Your task to perform on an android device: Go to notification settings Image 0: 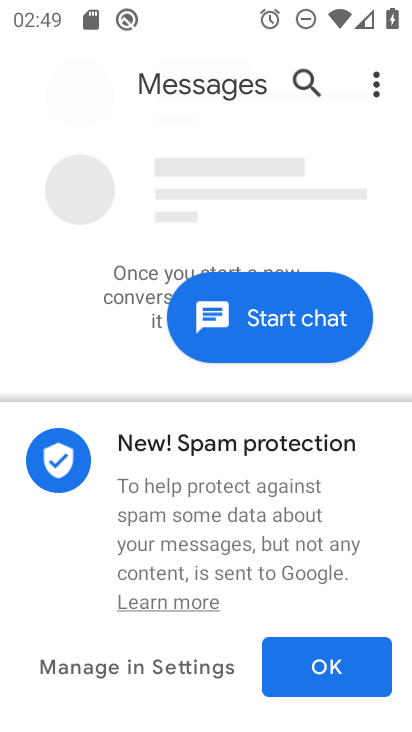
Step 0: press home button
Your task to perform on an android device: Go to notification settings Image 1: 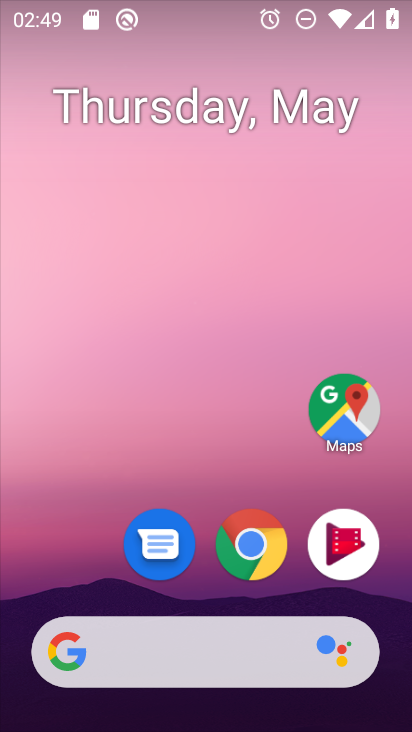
Step 1: drag from (393, 604) to (380, 248)
Your task to perform on an android device: Go to notification settings Image 2: 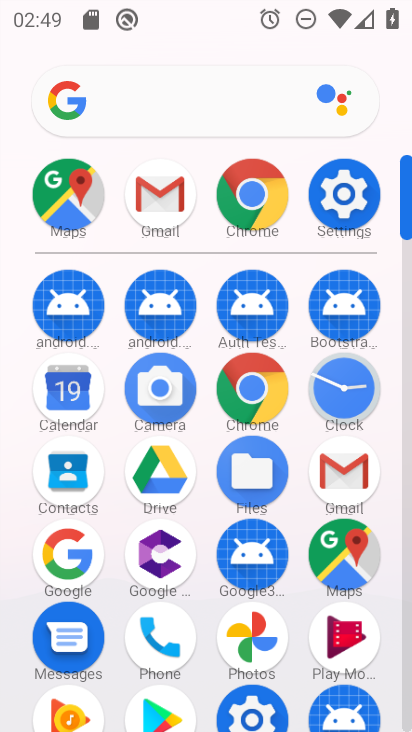
Step 2: click (352, 202)
Your task to perform on an android device: Go to notification settings Image 3: 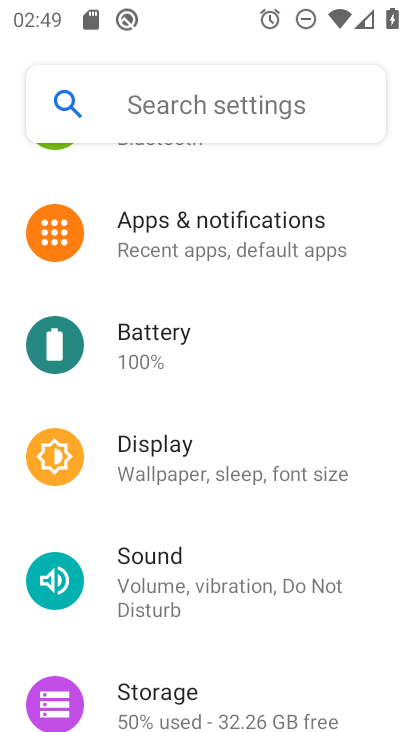
Step 3: drag from (360, 637) to (363, 509)
Your task to perform on an android device: Go to notification settings Image 4: 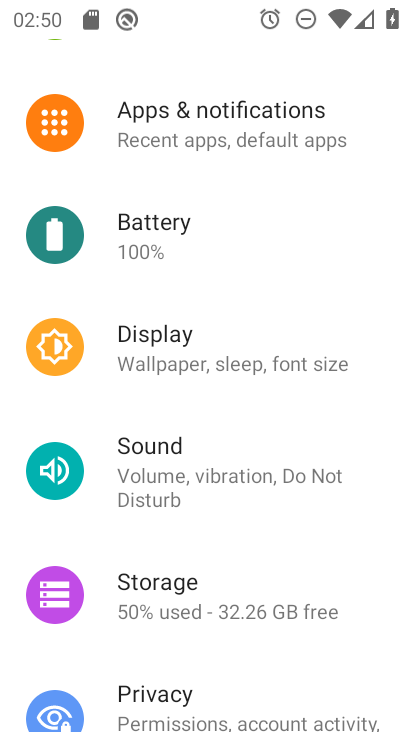
Step 4: drag from (325, 646) to (327, 555)
Your task to perform on an android device: Go to notification settings Image 5: 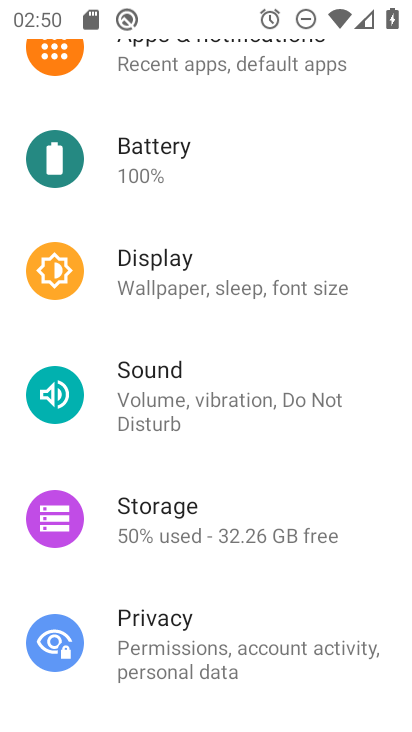
Step 5: drag from (342, 681) to (345, 584)
Your task to perform on an android device: Go to notification settings Image 6: 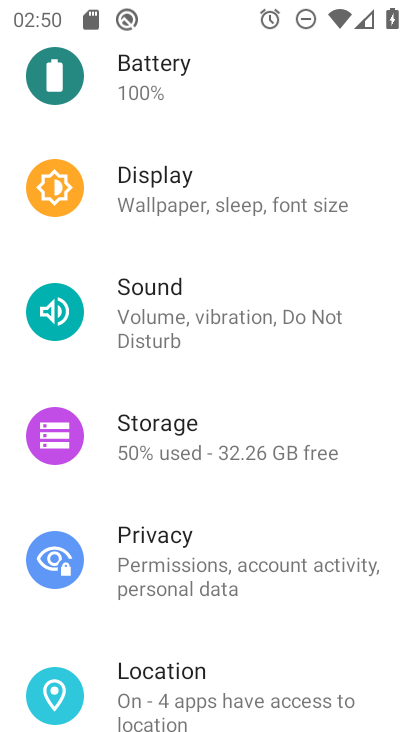
Step 6: drag from (351, 670) to (352, 533)
Your task to perform on an android device: Go to notification settings Image 7: 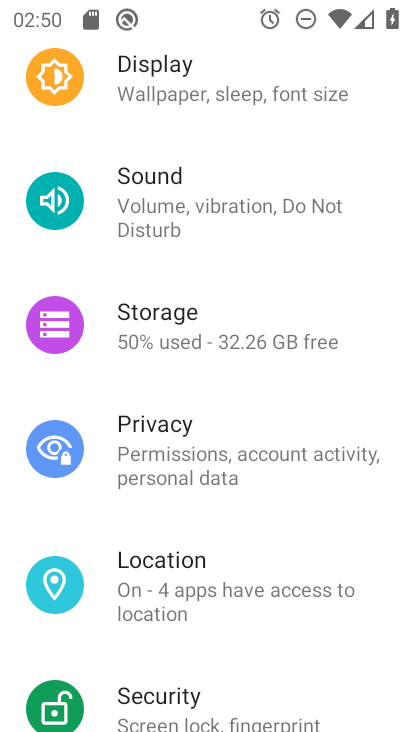
Step 7: drag from (347, 686) to (349, 612)
Your task to perform on an android device: Go to notification settings Image 8: 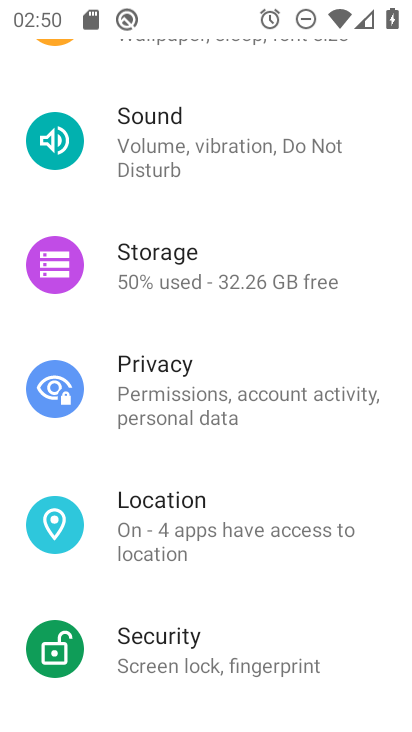
Step 8: drag from (365, 696) to (362, 608)
Your task to perform on an android device: Go to notification settings Image 9: 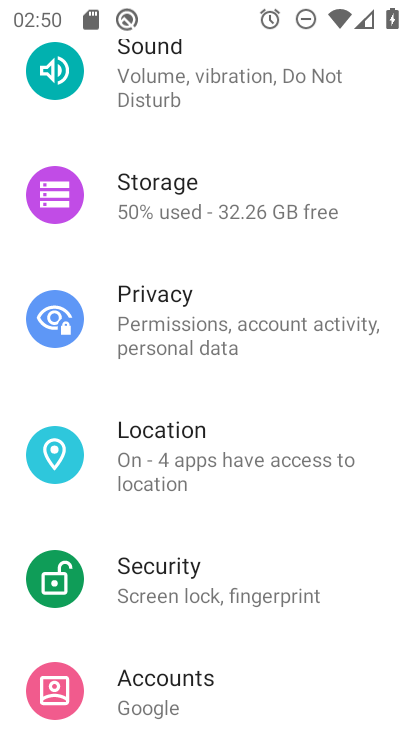
Step 9: drag from (360, 687) to (364, 591)
Your task to perform on an android device: Go to notification settings Image 10: 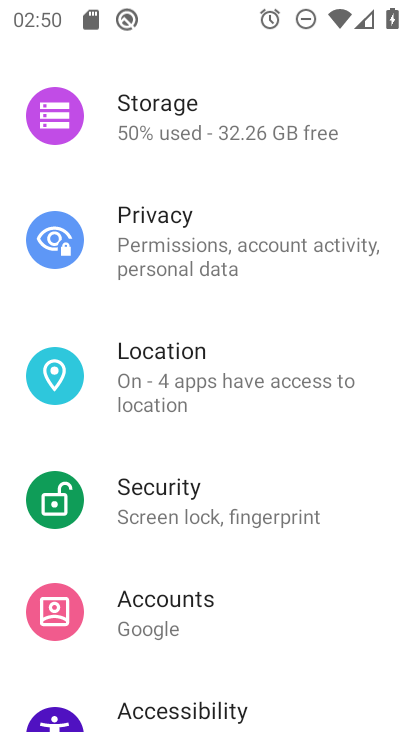
Step 10: drag from (372, 681) to (373, 601)
Your task to perform on an android device: Go to notification settings Image 11: 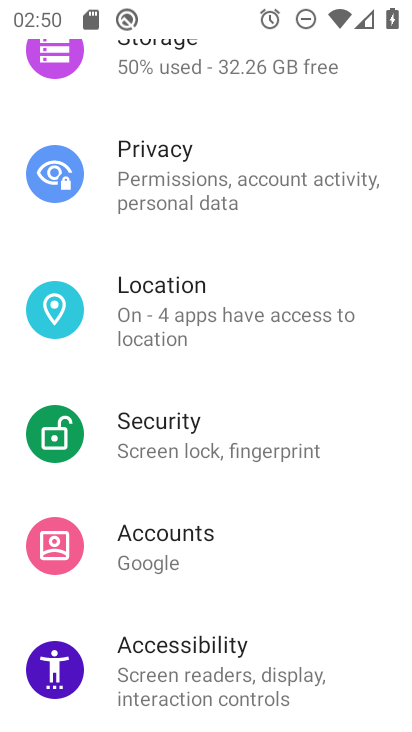
Step 11: drag from (365, 697) to (365, 614)
Your task to perform on an android device: Go to notification settings Image 12: 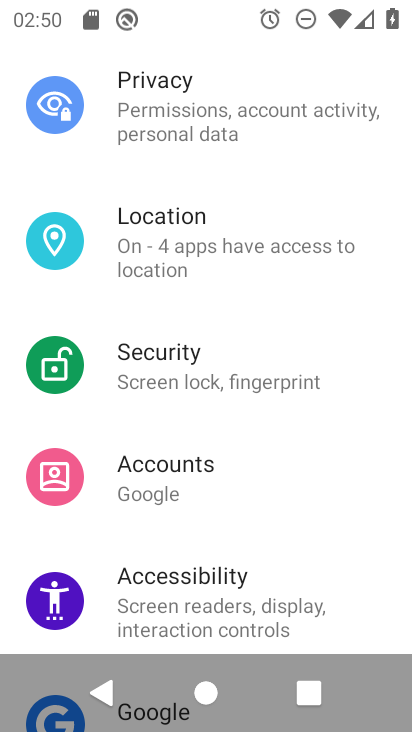
Step 12: drag from (354, 621) to (355, 514)
Your task to perform on an android device: Go to notification settings Image 13: 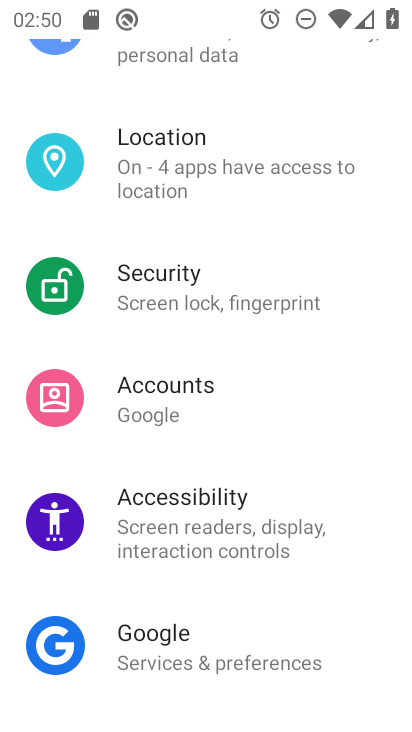
Step 13: drag from (347, 661) to (357, 567)
Your task to perform on an android device: Go to notification settings Image 14: 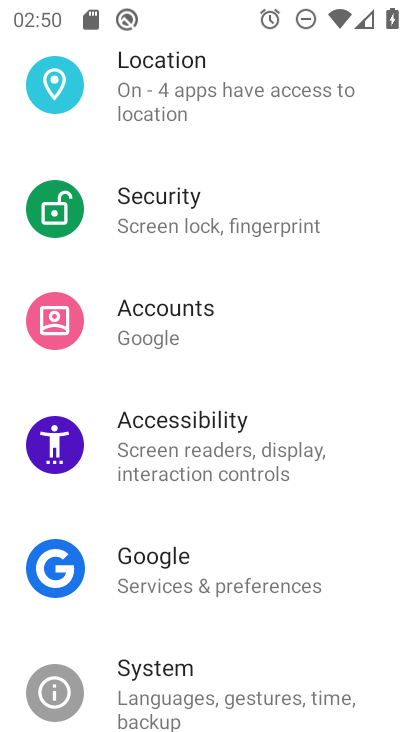
Step 14: drag from (363, 442) to (359, 555)
Your task to perform on an android device: Go to notification settings Image 15: 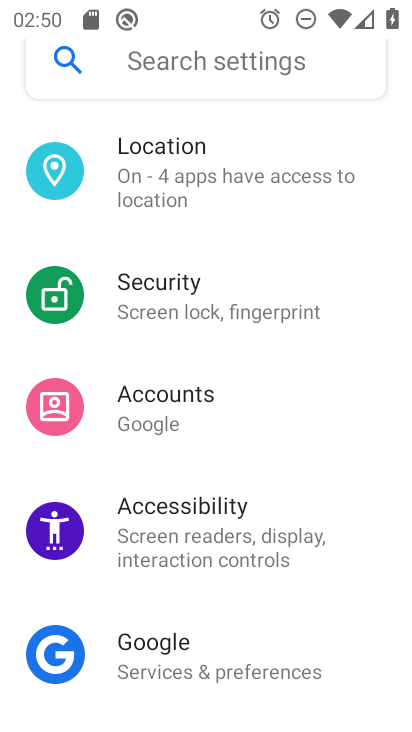
Step 15: drag from (334, 377) to (333, 484)
Your task to perform on an android device: Go to notification settings Image 16: 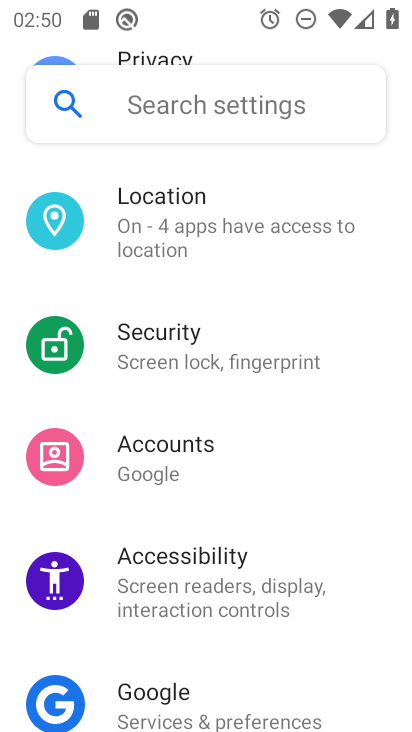
Step 16: drag from (340, 331) to (346, 462)
Your task to perform on an android device: Go to notification settings Image 17: 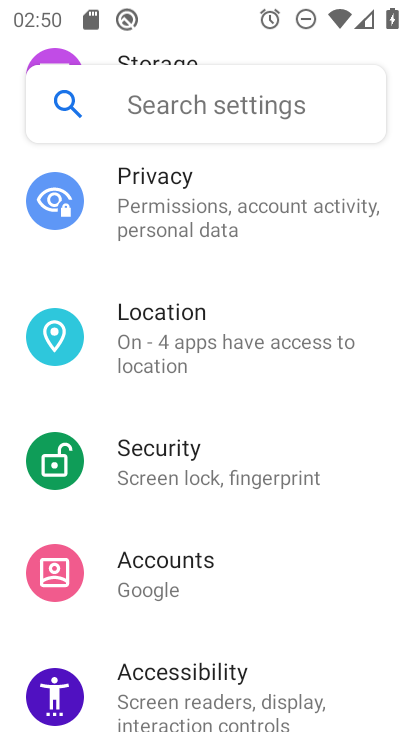
Step 17: drag from (341, 280) to (341, 393)
Your task to perform on an android device: Go to notification settings Image 18: 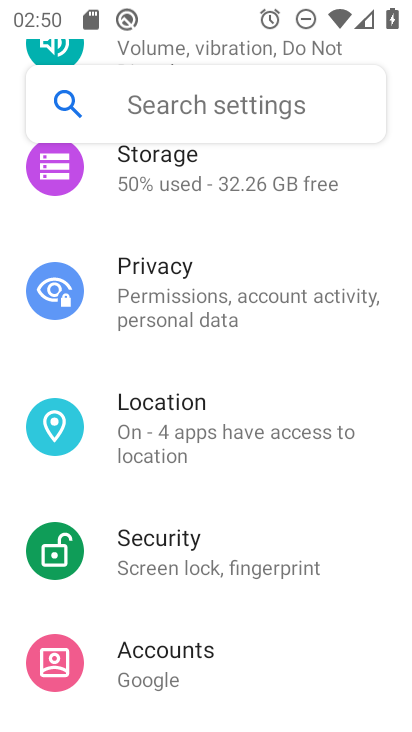
Step 18: drag from (344, 239) to (340, 354)
Your task to perform on an android device: Go to notification settings Image 19: 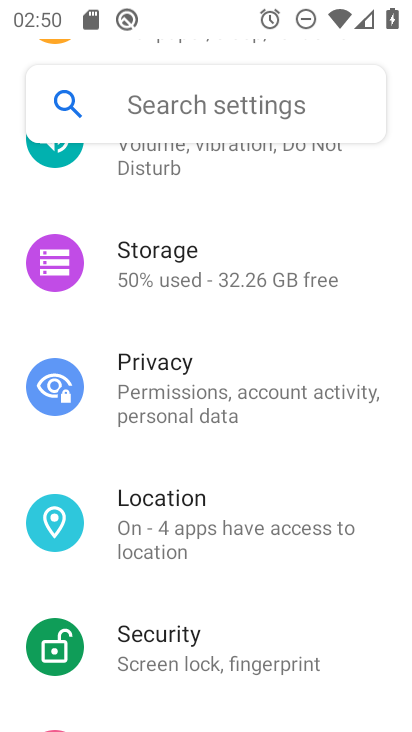
Step 19: drag from (346, 221) to (346, 357)
Your task to perform on an android device: Go to notification settings Image 20: 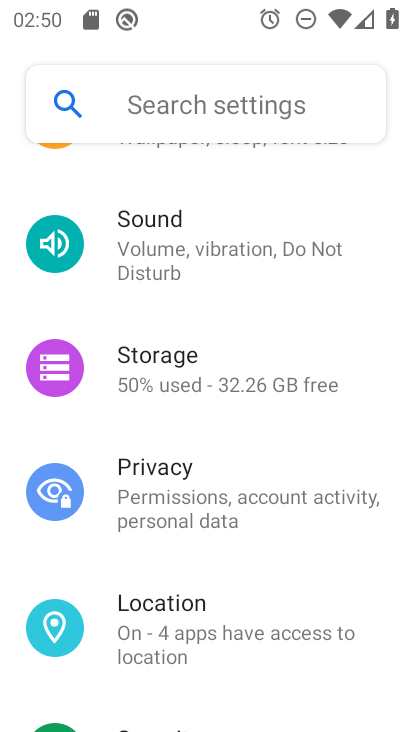
Step 20: drag from (345, 221) to (349, 357)
Your task to perform on an android device: Go to notification settings Image 21: 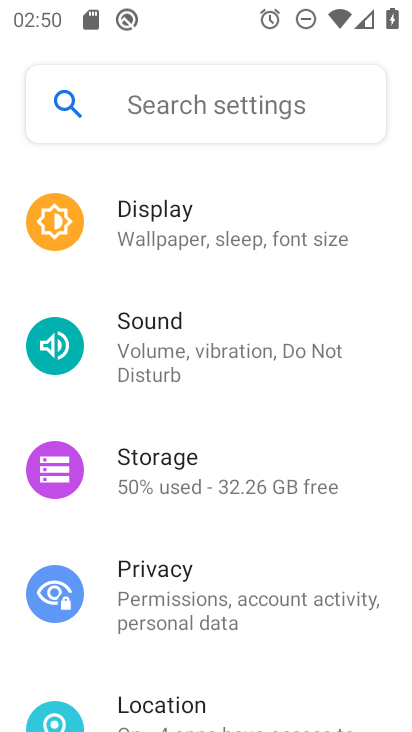
Step 21: drag from (345, 214) to (343, 354)
Your task to perform on an android device: Go to notification settings Image 22: 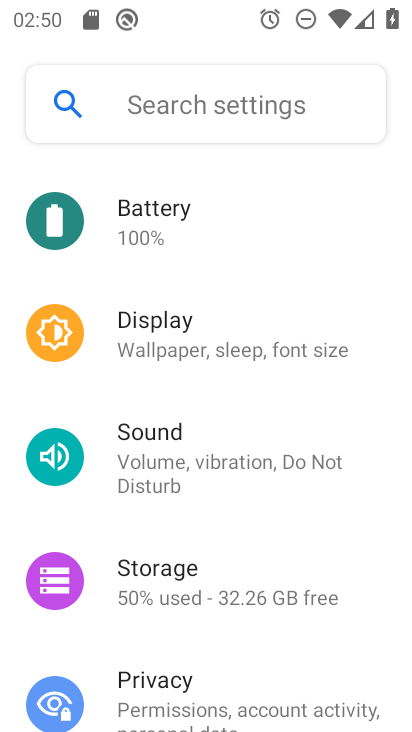
Step 22: drag from (352, 218) to (351, 353)
Your task to perform on an android device: Go to notification settings Image 23: 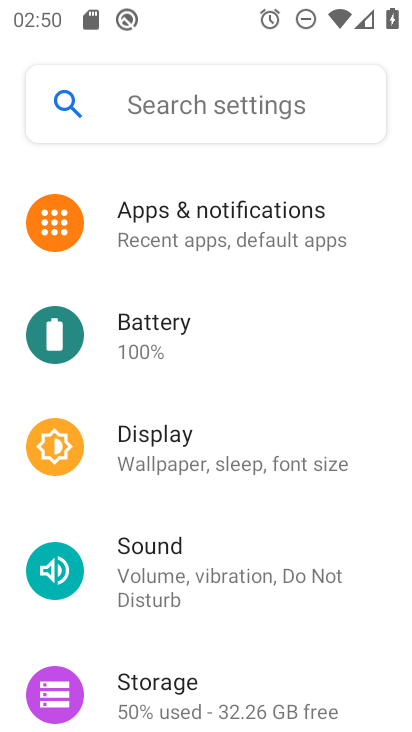
Step 23: click (278, 236)
Your task to perform on an android device: Go to notification settings Image 24: 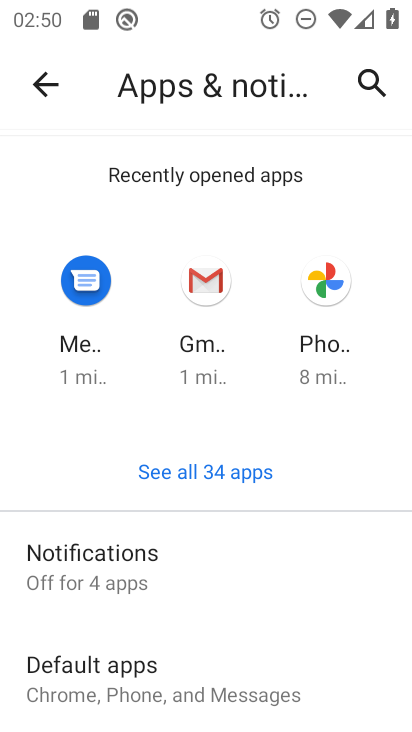
Step 24: task complete